Your task to perform on an android device: turn off smart reply in the gmail app Image 0: 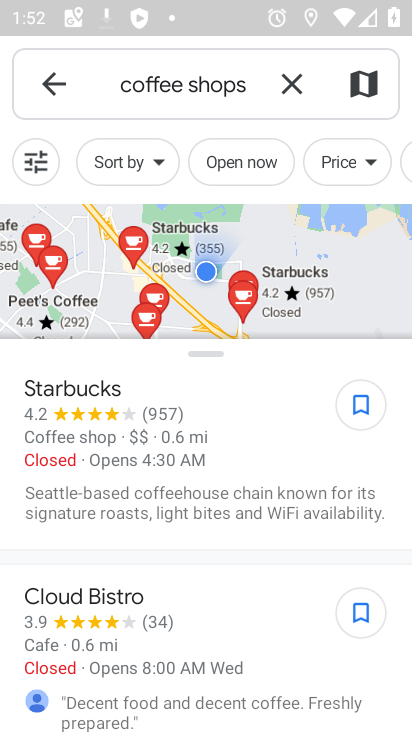
Step 0: press home button
Your task to perform on an android device: turn off smart reply in the gmail app Image 1: 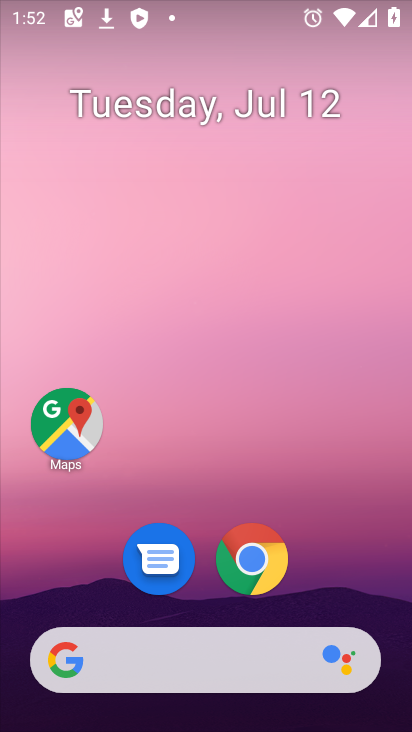
Step 1: drag from (385, 573) to (397, 190)
Your task to perform on an android device: turn off smart reply in the gmail app Image 2: 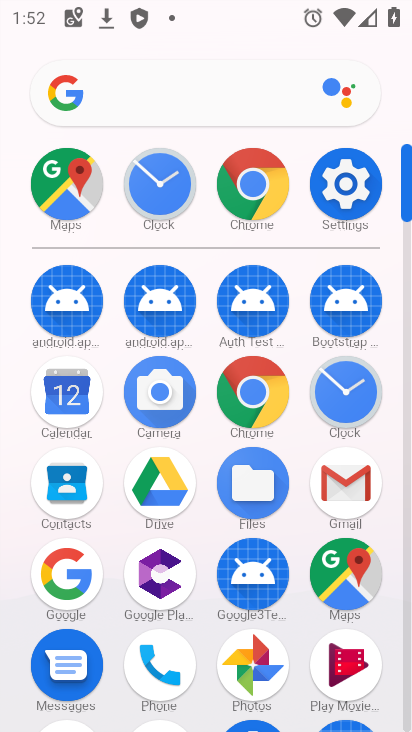
Step 2: click (351, 480)
Your task to perform on an android device: turn off smart reply in the gmail app Image 3: 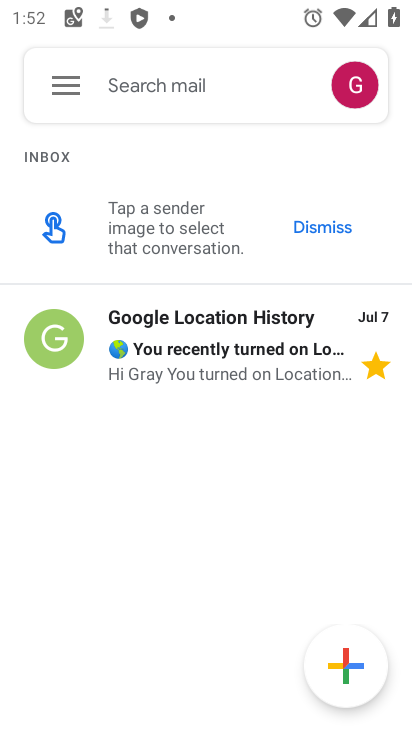
Step 3: click (70, 91)
Your task to perform on an android device: turn off smart reply in the gmail app Image 4: 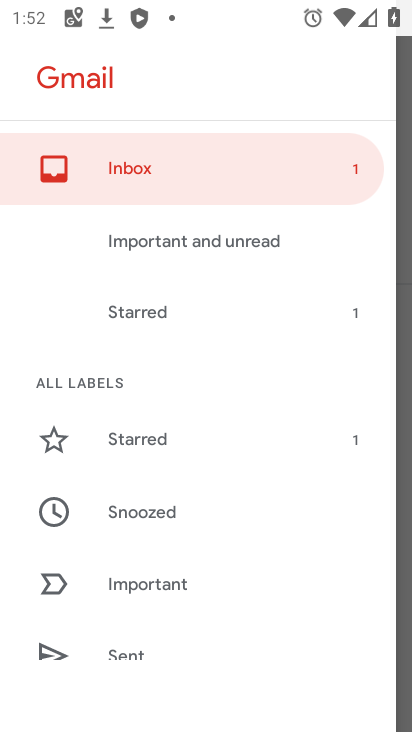
Step 4: drag from (284, 527) to (289, 443)
Your task to perform on an android device: turn off smart reply in the gmail app Image 5: 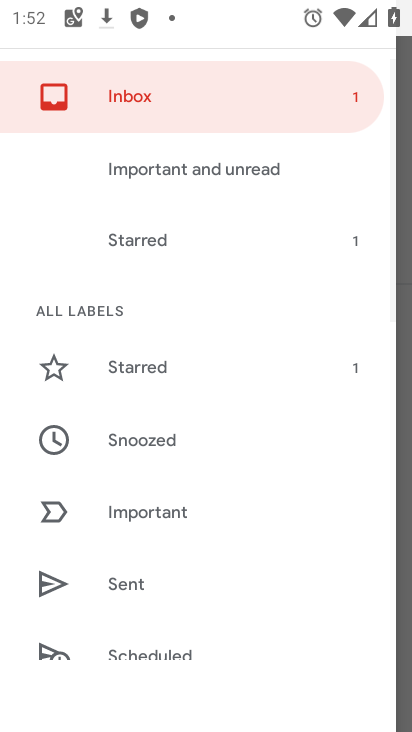
Step 5: drag from (287, 555) to (293, 424)
Your task to perform on an android device: turn off smart reply in the gmail app Image 6: 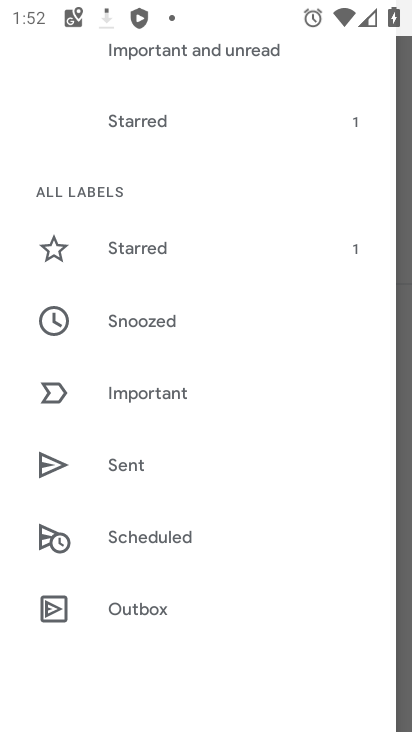
Step 6: drag from (295, 535) to (296, 436)
Your task to perform on an android device: turn off smart reply in the gmail app Image 7: 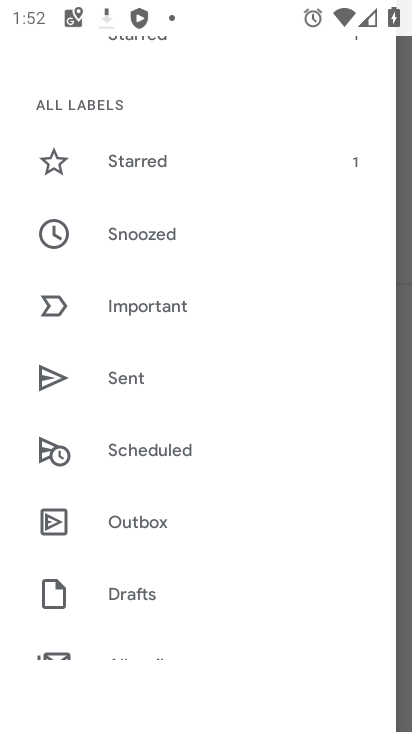
Step 7: drag from (293, 540) to (292, 459)
Your task to perform on an android device: turn off smart reply in the gmail app Image 8: 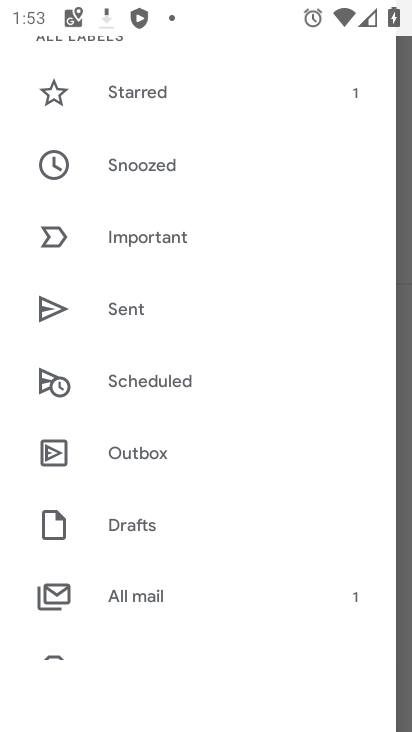
Step 8: drag from (272, 531) to (268, 437)
Your task to perform on an android device: turn off smart reply in the gmail app Image 9: 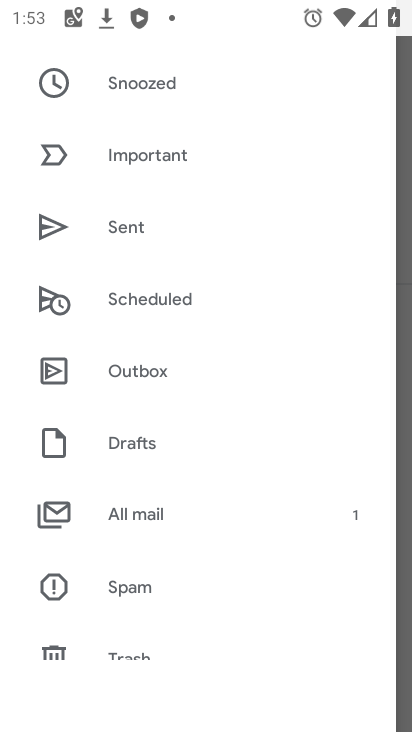
Step 9: drag from (290, 532) to (288, 431)
Your task to perform on an android device: turn off smart reply in the gmail app Image 10: 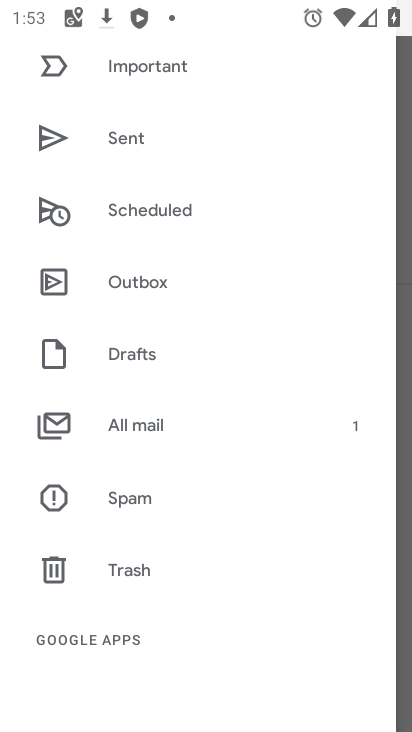
Step 10: drag from (251, 558) to (255, 384)
Your task to perform on an android device: turn off smart reply in the gmail app Image 11: 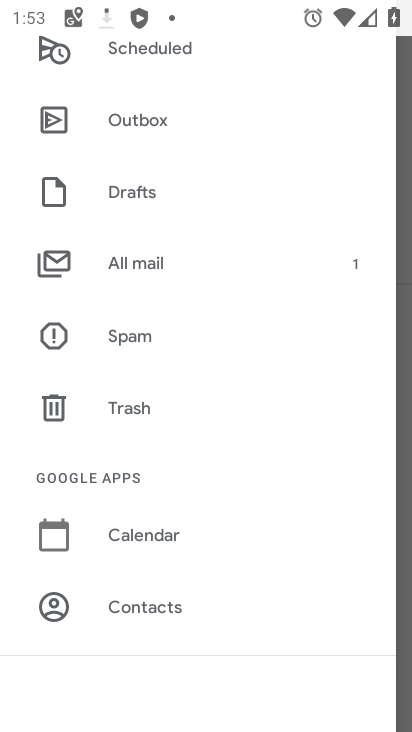
Step 11: drag from (267, 566) to (270, 433)
Your task to perform on an android device: turn off smart reply in the gmail app Image 12: 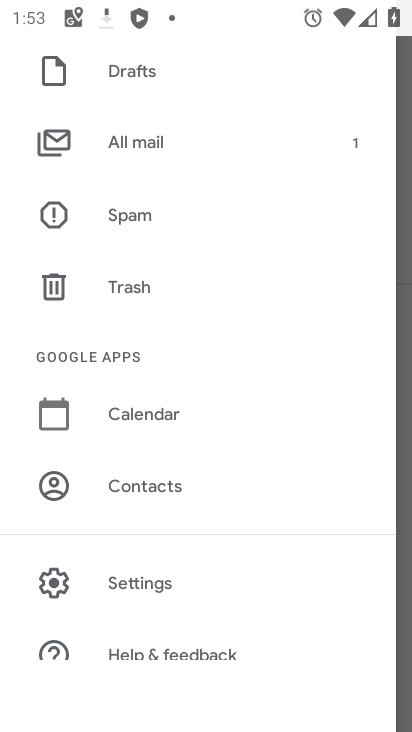
Step 12: click (221, 590)
Your task to perform on an android device: turn off smart reply in the gmail app Image 13: 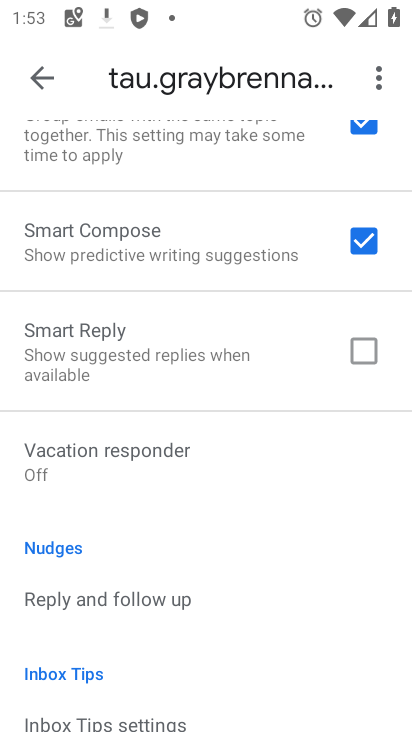
Step 13: task complete